Your task to perform on an android device: change the clock display to digital Image 0: 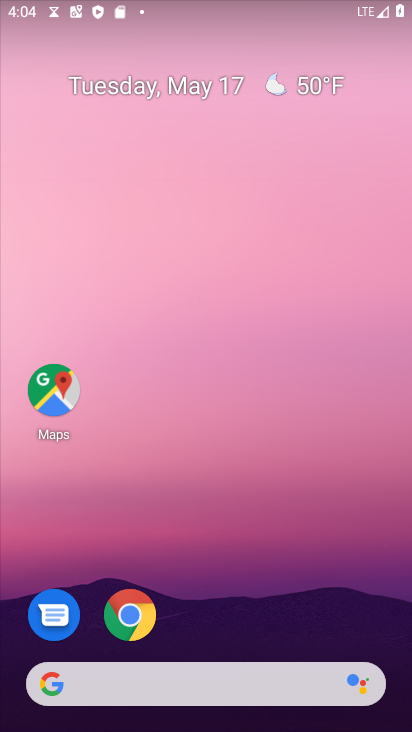
Step 0: drag from (362, 672) to (316, 216)
Your task to perform on an android device: change the clock display to digital Image 1: 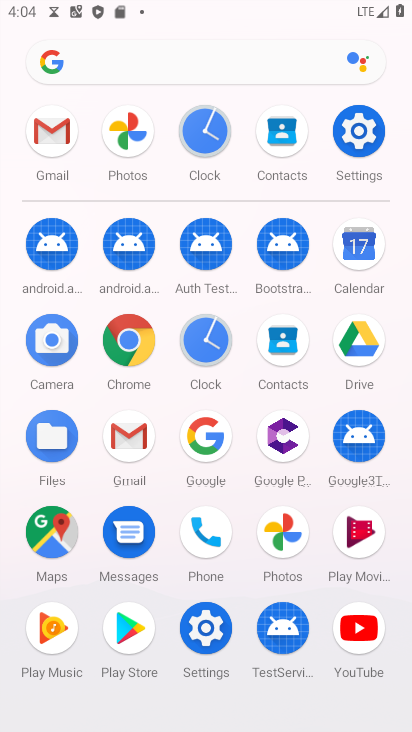
Step 1: click (201, 136)
Your task to perform on an android device: change the clock display to digital Image 2: 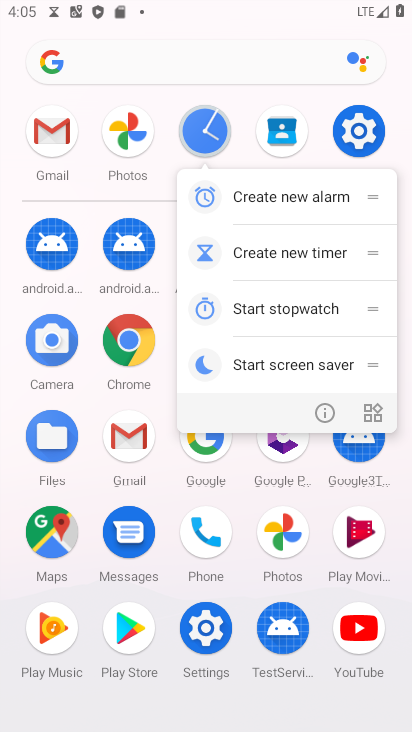
Step 2: click (178, 132)
Your task to perform on an android device: change the clock display to digital Image 3: 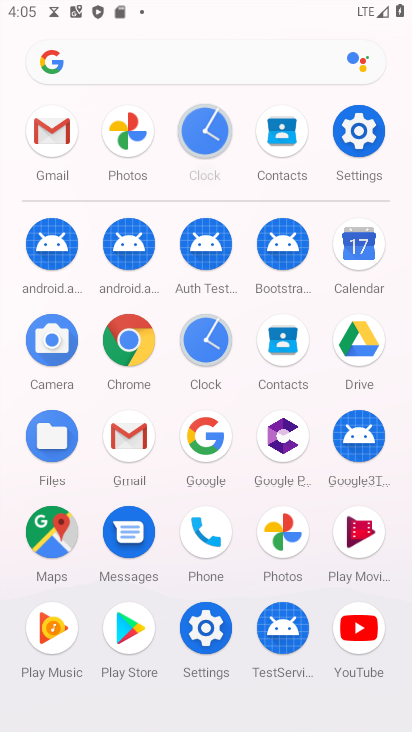
Step 3: click (192, 129)
Your task to perform on an android device: change the clock display to digital Image 4: 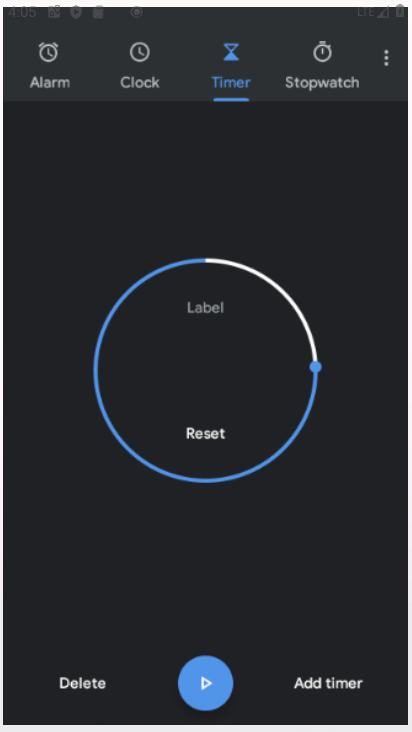
Step 4: click (192, 129)
Your task to perform on an android device: change the clock display to digital Image 5: 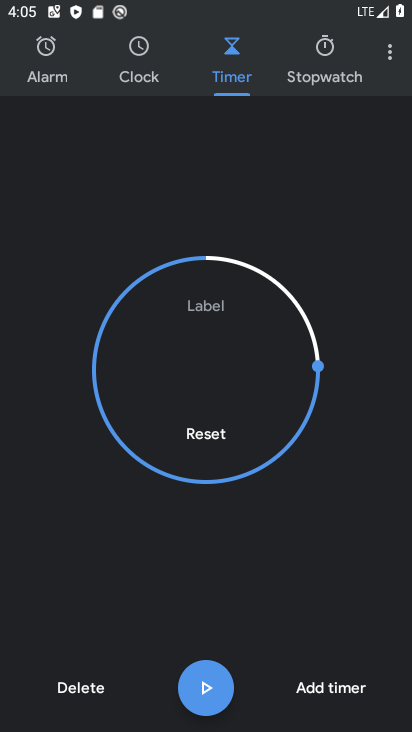
Step 5: click (385, 53)
Your task to perform on an android device: change the clock display to digital Image 6: 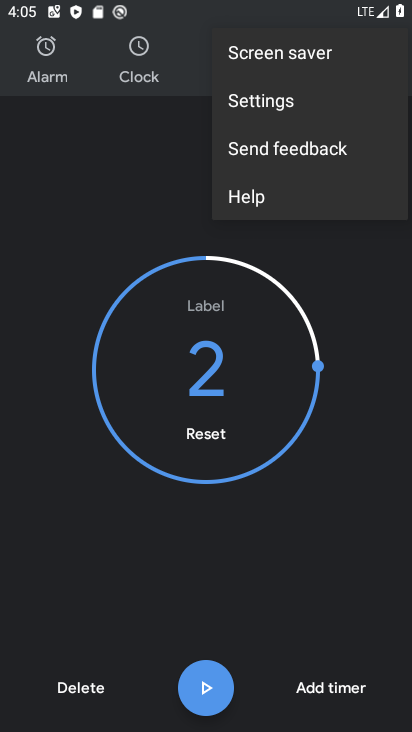
Step 6: click (267, 102)
Your task to perform on an android device: change the clock display to digital Image 7: 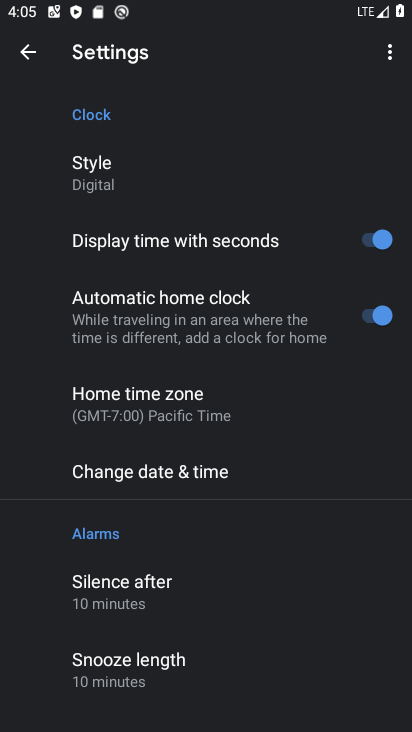
Step 7: click (117, 166)
Your task to perform on an android device: change the clock display to digital Image 8: 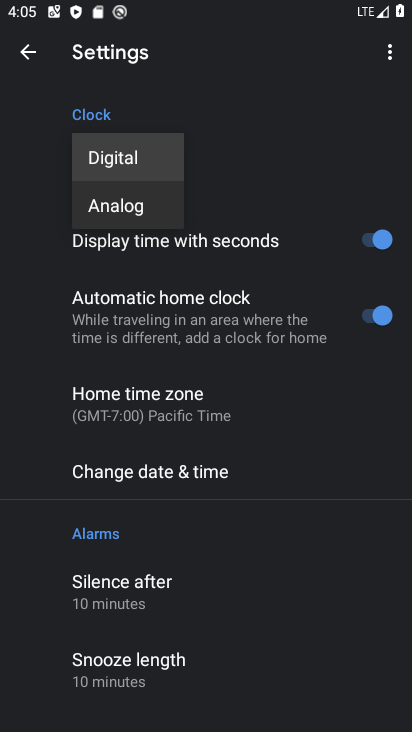
Step 8: click (128, 161)
Your task to perform on an android device: change the clock display to digital Image 9: 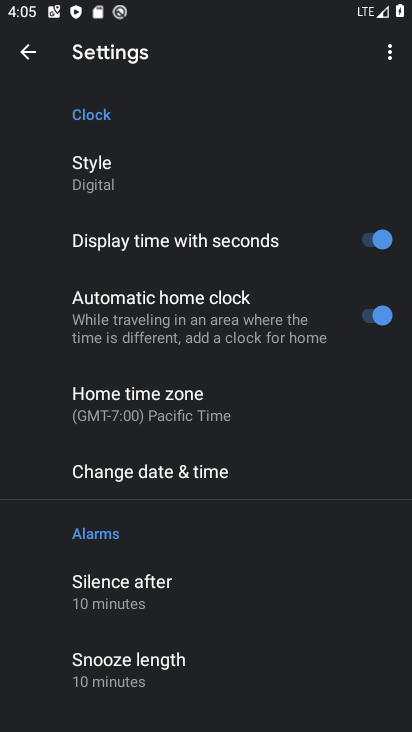
Step 9: task complete